Your task to perform on an android device: allow notifications from all sites in the chrome app Image 0: 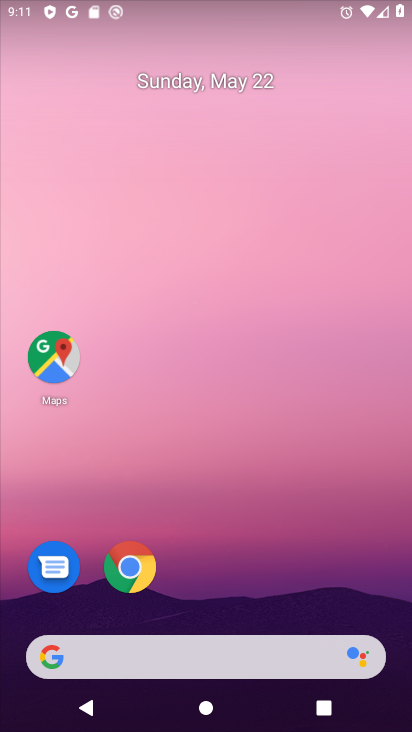
Step 0: drag from (211, 589) to (267, 38)
Your task to perform on an android device: allow notifications from all sites in the chrome app Image 1: 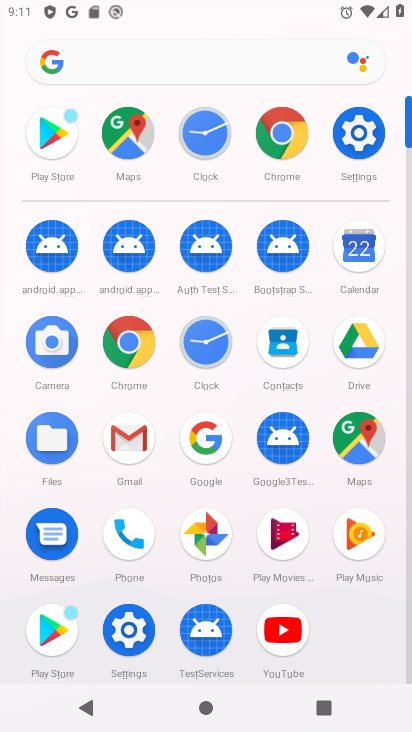
Step 1: click (286, 140)
Your task to perform on an android device: allow notifications from all sites in the chrome app Image 2: 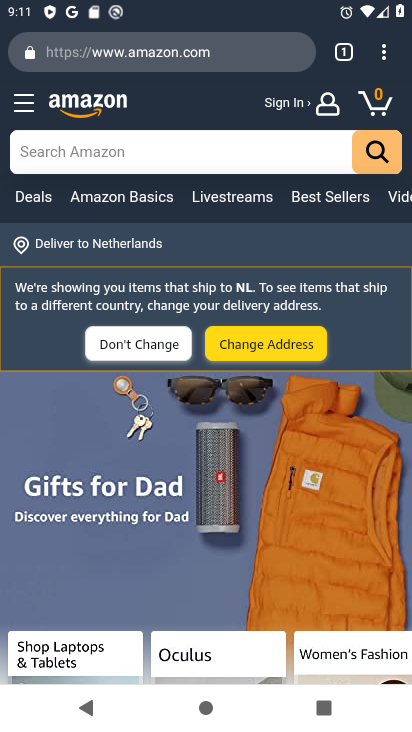
Step 2: click (386, 55)
Your task to perform on an android device: allow notifications from all sites in the chrome app Image 3: 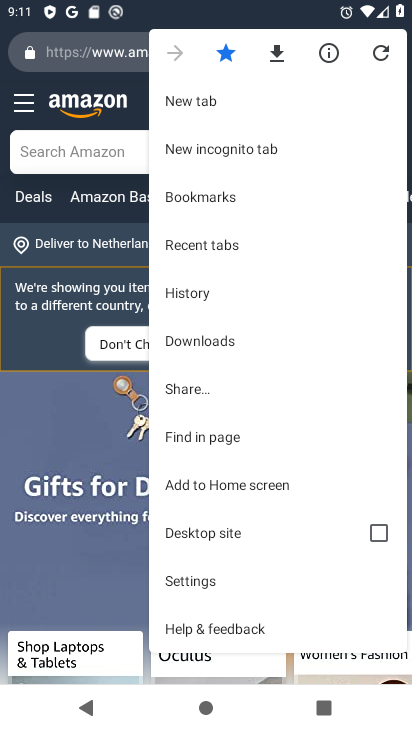
Step 3: click (189, 582)
Your task to perform on an android device: allow notifications from all sites in the chrome app Image 4: 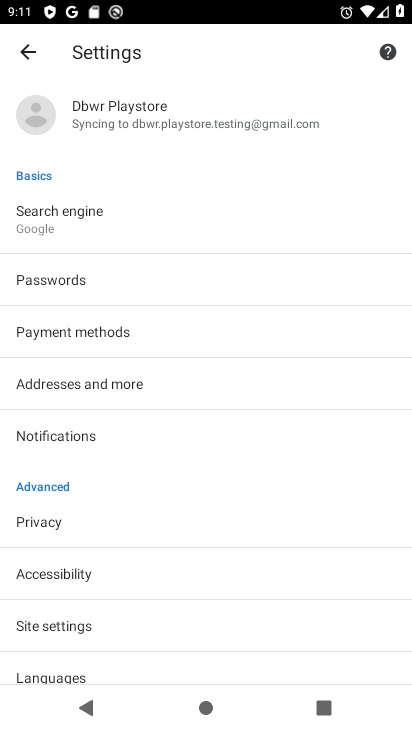
Step 4: click (102, 432)
Your task to perform on an android device: allow notifications from all sites in the chrome app Image 5: 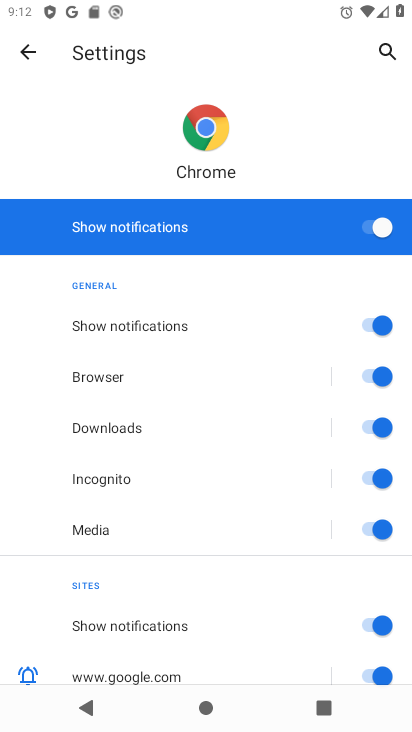
Step 5: task complete